Your task to perform on an android device: Go to CNN.com Image 0: 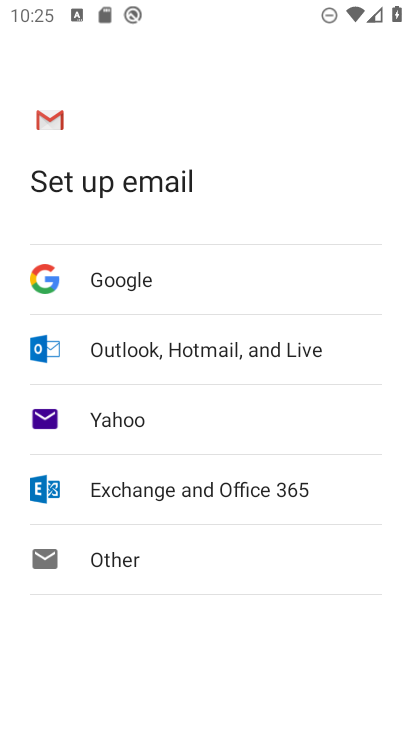
Step 0: press home button
Your task to perform on an android device: Go to CNN.com Image 1: 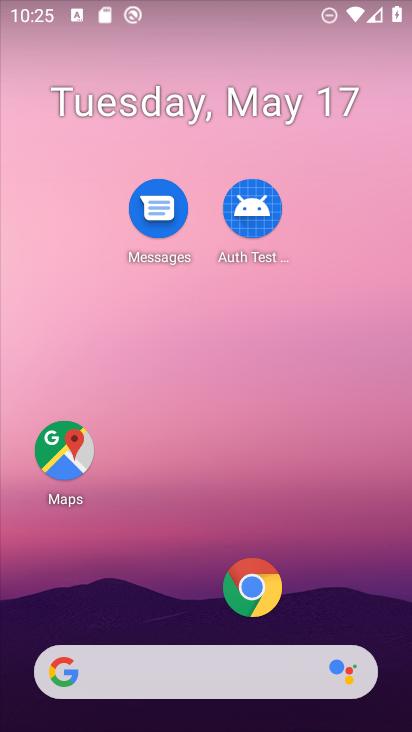
Step 1: drag from (231, 482) to (152, 126)
Your task to perform on an android device: Go to CNN.com Image 2: 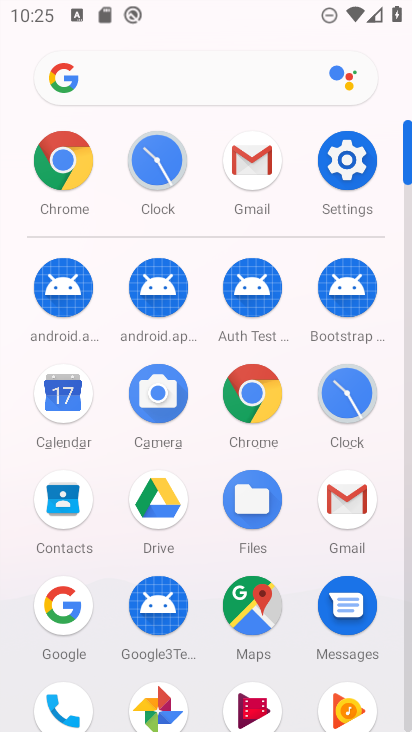
Step 2: click (247, 410)
Your task to perform on an android device: Go to CNN.com Image 3: 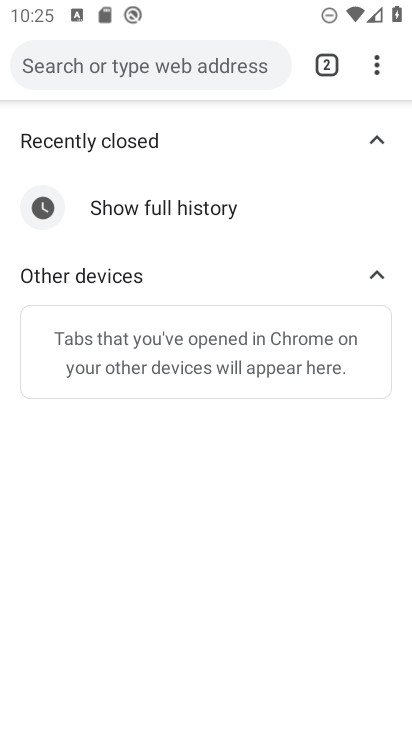
Step 3: click (209, 74)
Your task to perform on an android device: Go to CNN.com Image 4: 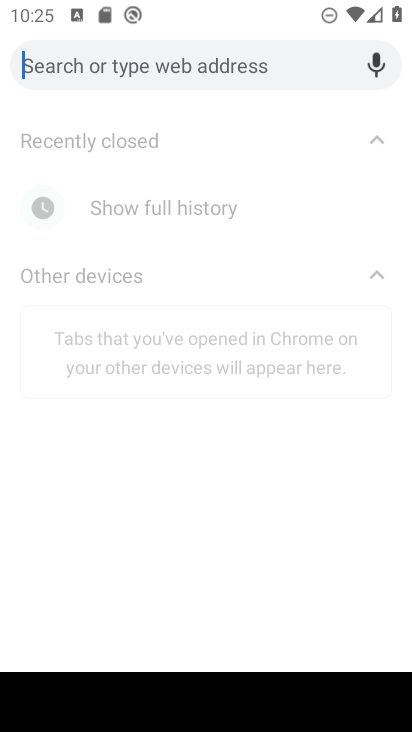
Step 4: drag from (346, 728) to (381, 567)
Your task to perform on an android device: Go to CNN.com Image 5: 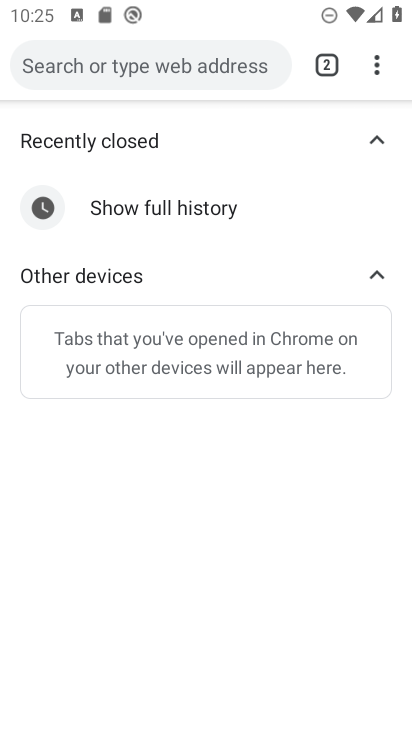
Step 5: type "CNN.com"
Your task to perform on an android device: Go to CNN.com Image 6: 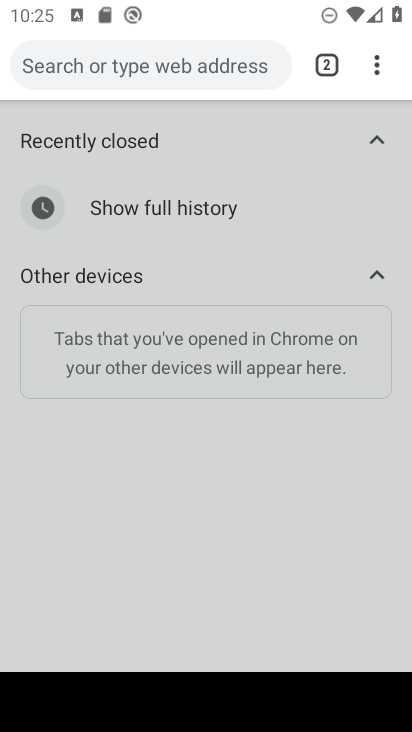
Step 6: type ""
Your task to perform on an android device: Go to CNN.com Image 7: 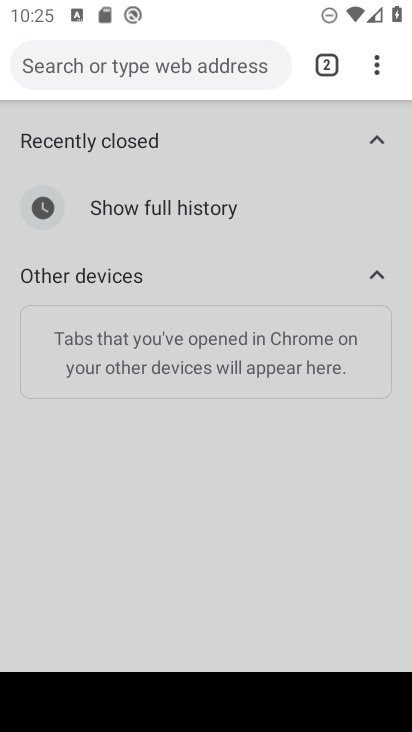
Step 7: click (43, 66)
Your task to perform on an android device: Go to CNN.com Image 8: 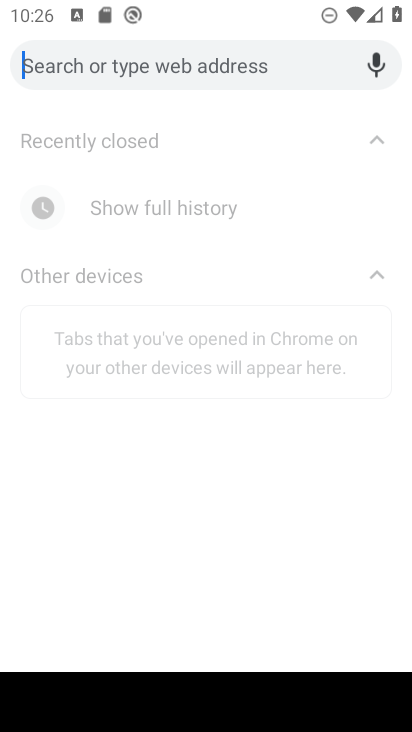
Step 8: type "CNN.com"
Your task to perform on an android device: Go to CNN.com Image 9: 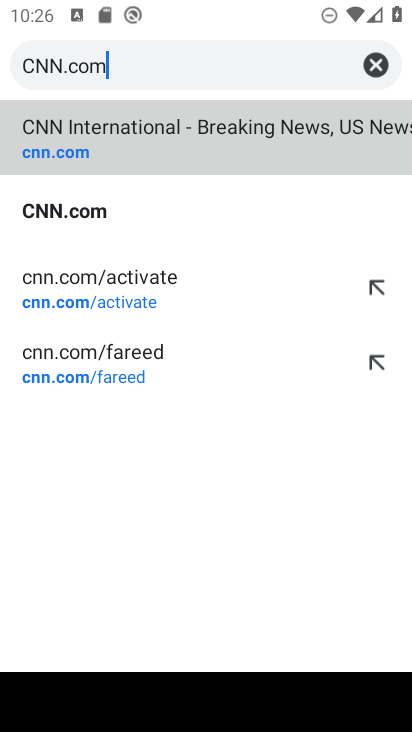
Step 9: type ""
Your task to perform on an android device: Go to CNN.com Image 10: 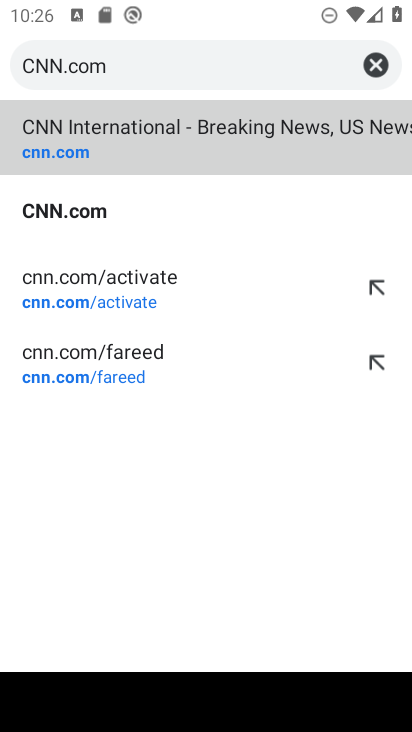
Step 10: click (100, 160)
Your task to perform on an android device: Go to CNN.com Image 11: 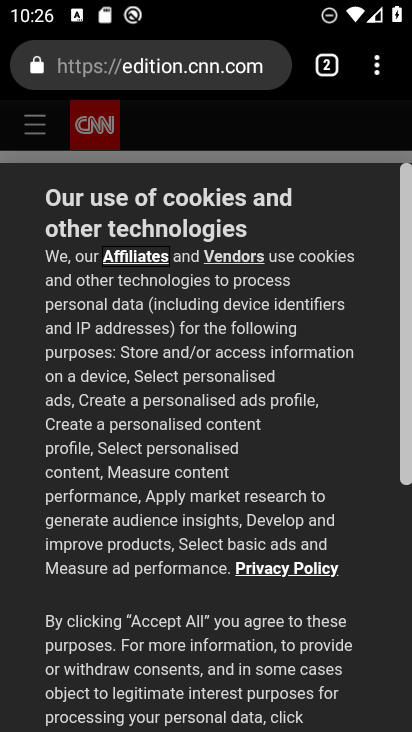
Step 11: task complete